Your task to perform on an android device: Open location settings Image 0: 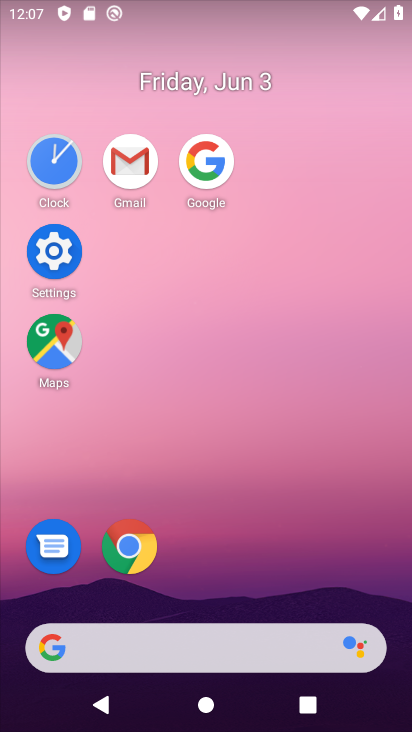
Step 0: click (46, 250)
Your task to perform on an android device: Open location settings Image 1: 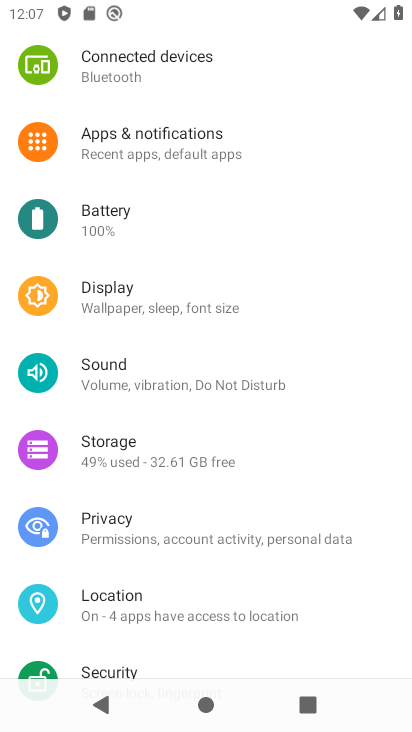
Step 1: click (205, 604)
Your task to perform on an android device: Open location settings Image 2: 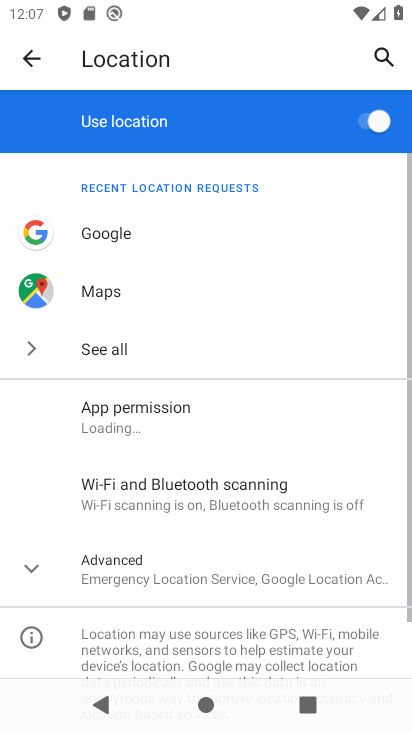
Step 2: task complete